Your task to perform on an android device: Open Youtube and go to the subscriptions tab Image 0: 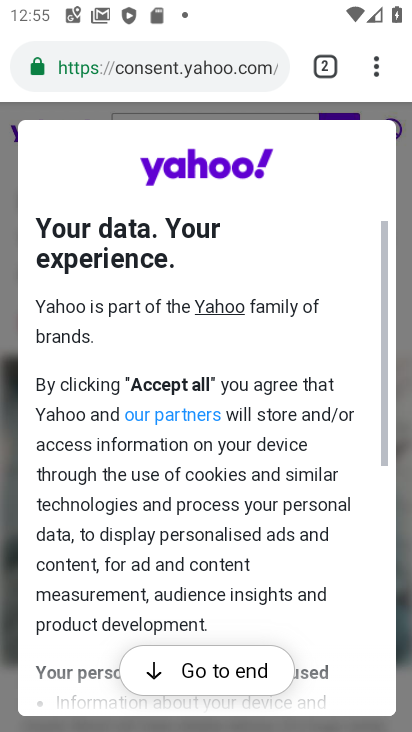
Step 0: press home button
Your task to perform on an android device: Open Youtube and go to the subscriptions tab Image 1: 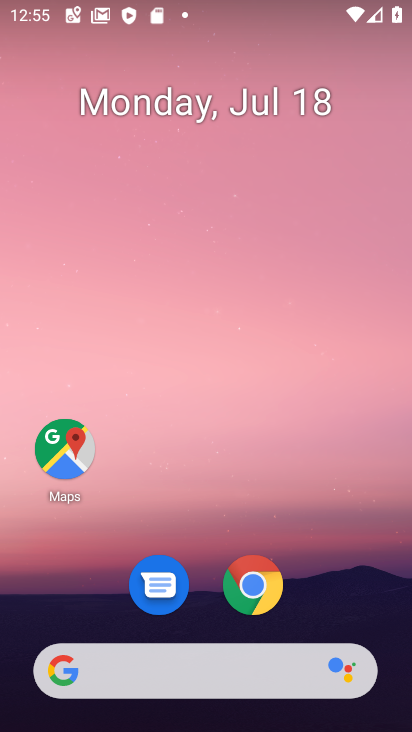
Step 1: drag from (191, 653) to (209, 260)
Your task to perform on an android device: Open Youtube and go to the subscriptions tab Image 2: 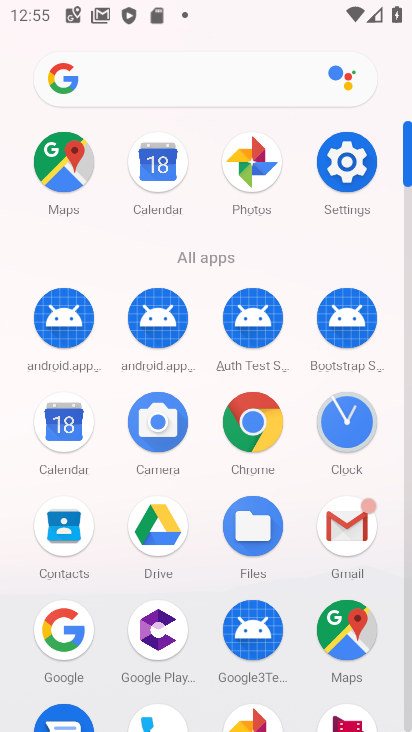
Step 2: drag from (288, 669) to (262, 224)
Your task to perform on an android device: Open Youtube and go to the subscriptions tab Image 3: 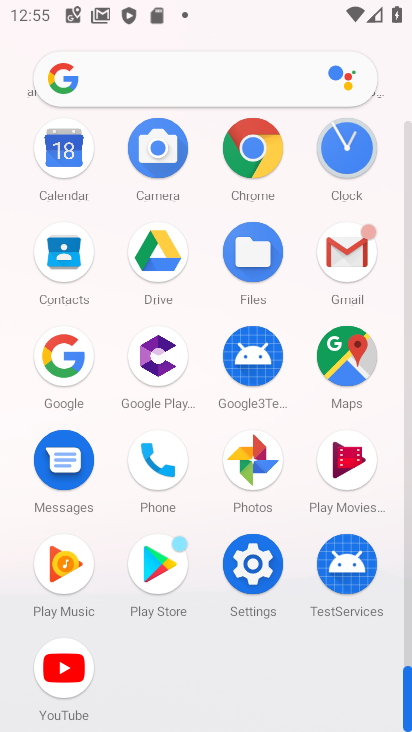
Step 3: click (58, 666)
Your task to perform on an android device: Open Youtube and go to the subscriptions tab Image 4: 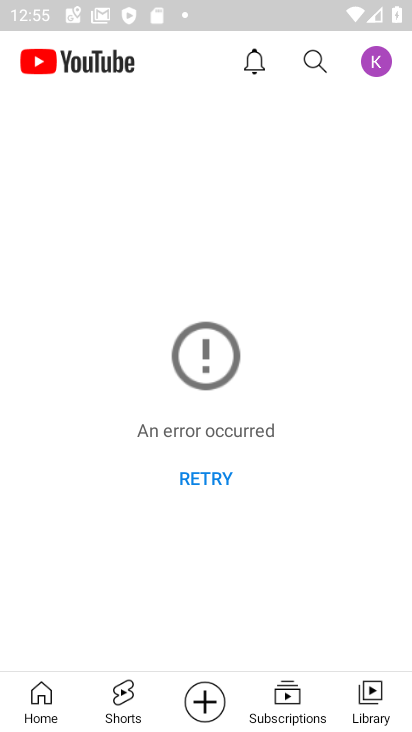
Step 4: click (199, 470)
Your task to perform on an android device: Open Youtube and go to the subscriptions tab Image 5: 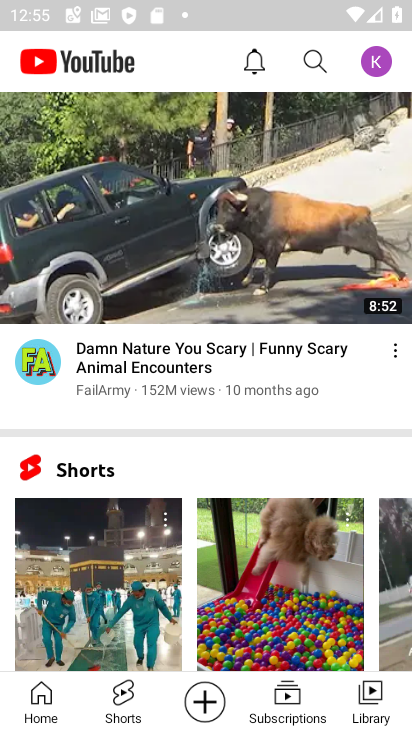
Step 5: click (293, 694)
Your task to perform on an android device: Open Youtube and go to the subscriptions tab Image 6: 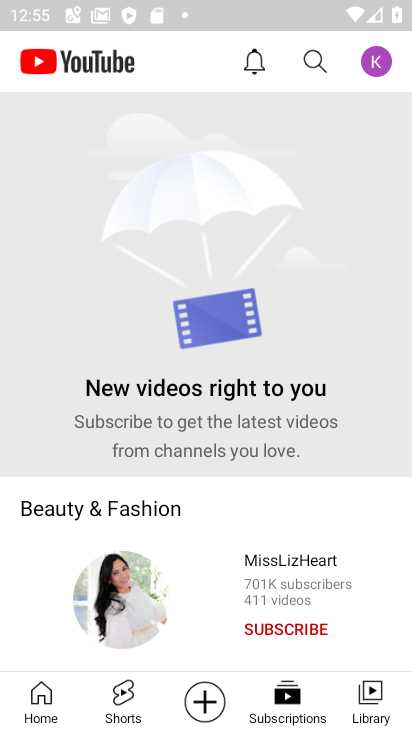
Step 6: task complete